Your task to perform on an android device: Open Google Chrome and open the bookmarks view Image 0: 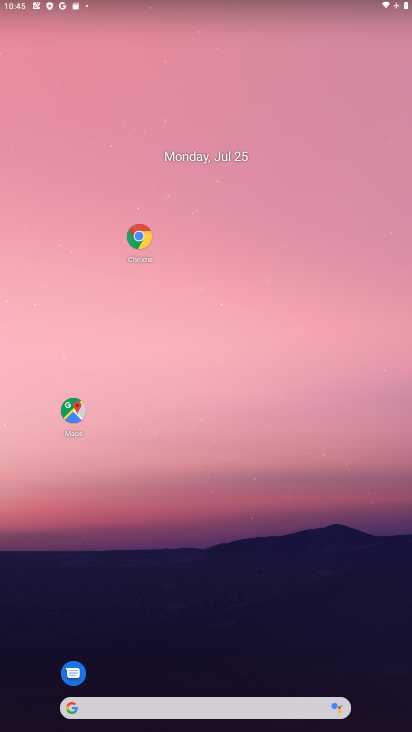
Step 0: click (136, 223)
Your task to perform on an android device: Open Google Chrome and open the bookmarks view Image 1: 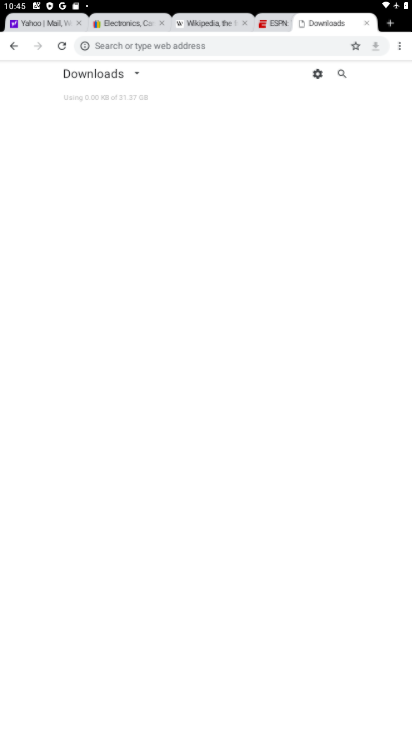
Step 1: task complete